Your task to perform on an android device: Go to Wikipedia Image 0: 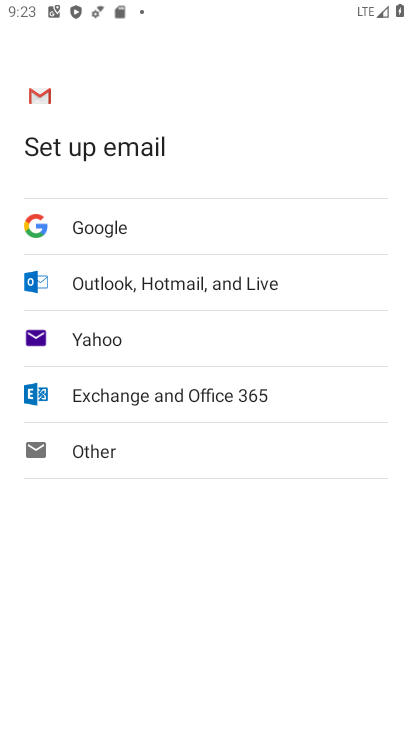
Step 0: press home button
Your task to perform on an android device: Go to Wikipedia Image 1: 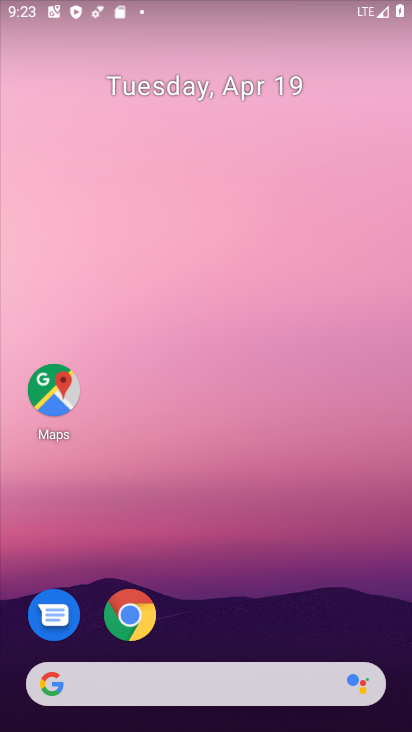
Step 1: click (129, 617)
Your task to perform on an android device: Go to Wikipedia Image 2: 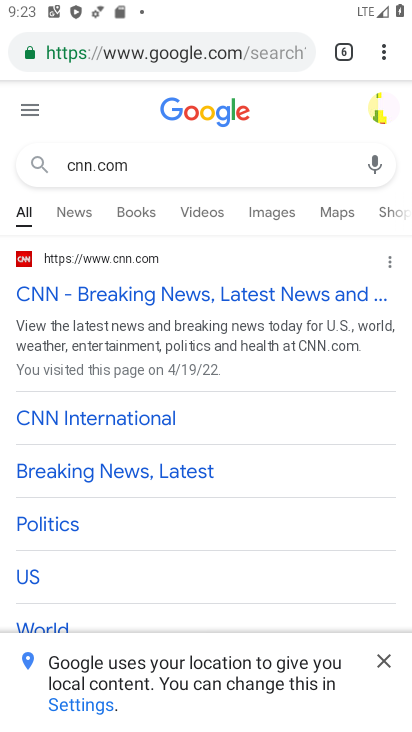
Step 2: click (344, 47)
Your task to perform on an android device: Go to Wikipedia Image 3: 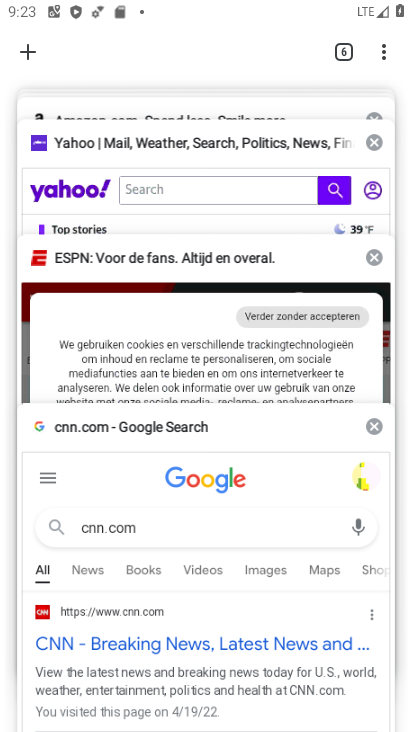
Step 3: click (27, 64)
Your task to perform on an android device: Go to Wikipedia Image 4: 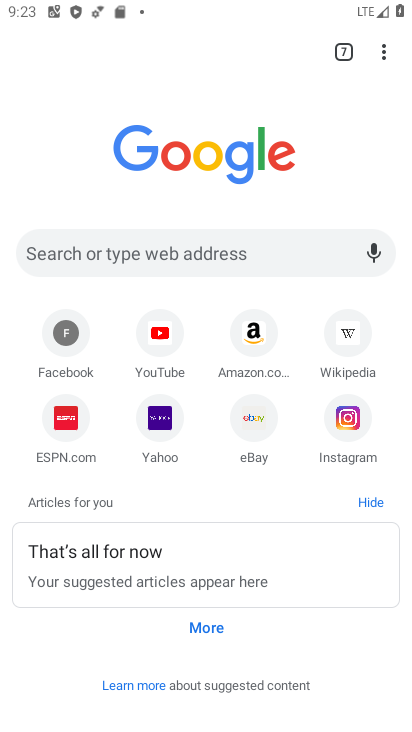
Step 4: click (347, 341)
Your task to perform on an android device: Go to Wikipedia Image 5: 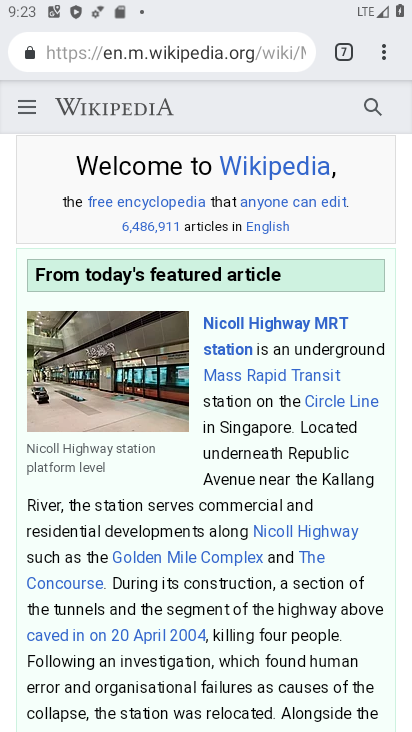
Step 5: task complete